Your task to perform on an android device: Show me productivity apps on the Play Store Image 0: 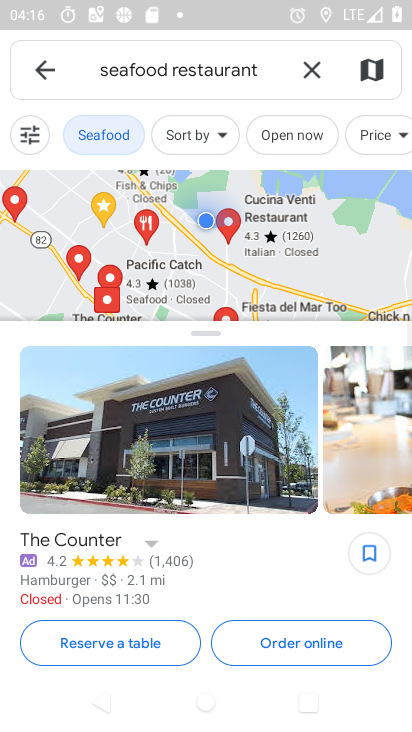
Step 0: press back button
Your task to perform on an android device: Show me productivity apps on the Play Store Image 1: 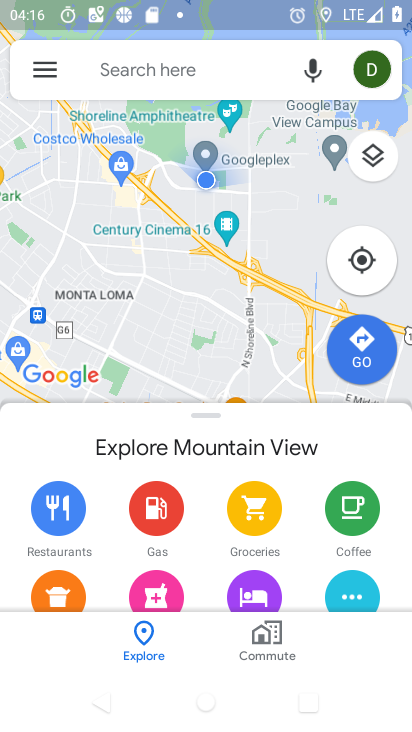
Step 1: press home button
Your task to perform on an android device: Show me productivity apps on the Play Store Image 2: 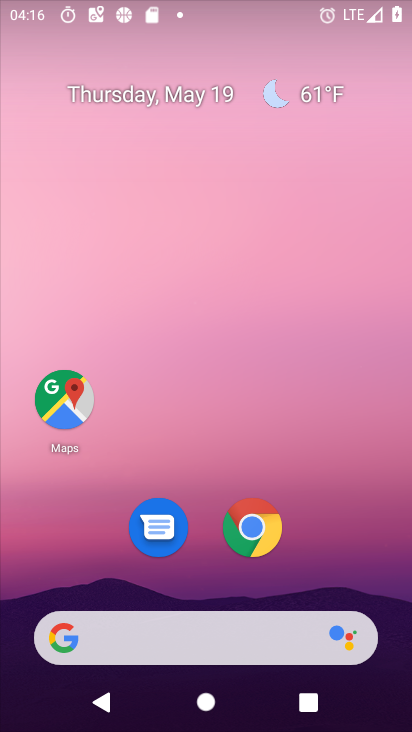
Step 2: drag from (139, 596) to (268, 68)
Your task to perform on an android device: Show me productivity apps on the Play Store Image 3: 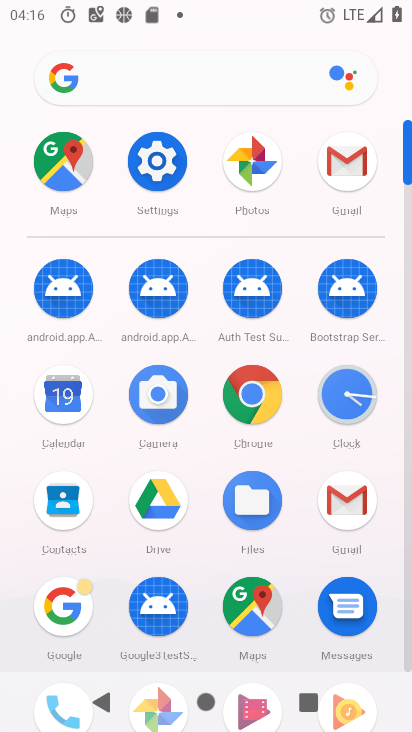
Step 3: drag from (206, 516) to (323, 48)
Your task to perform on an android device: Show me productivity apps on the Play Store Image 4: 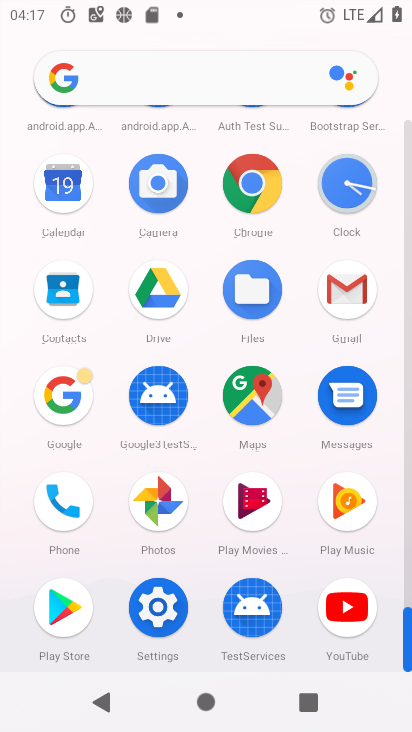
Step 4: click (59, 618)
Your task to perform on an android device: Show me productivity apps on the Play Store Image 5: 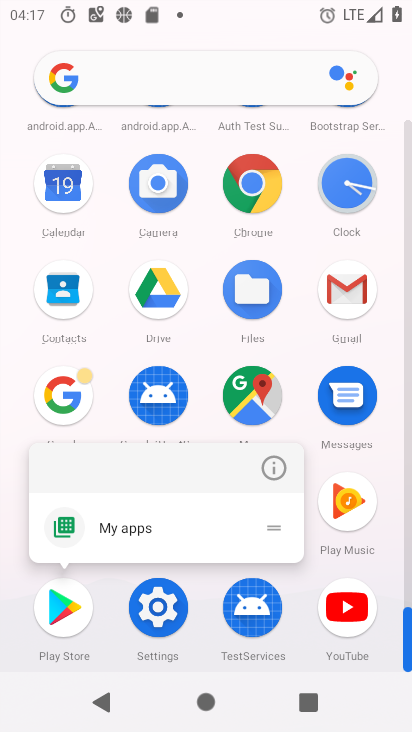
Step 5: click (112, 420)
Your task to perform on an android device: Show me productivity apps on the Play Store Image 6: 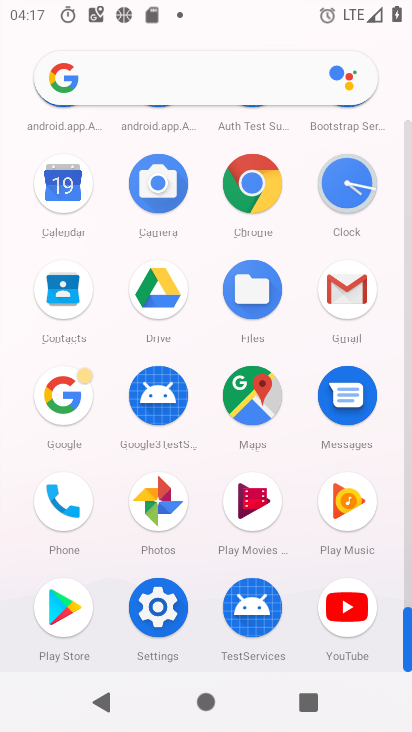
Step 6: click (63, 612)
Your task to perform on an android device: Show me productivity apps on the Play Store Image 7: 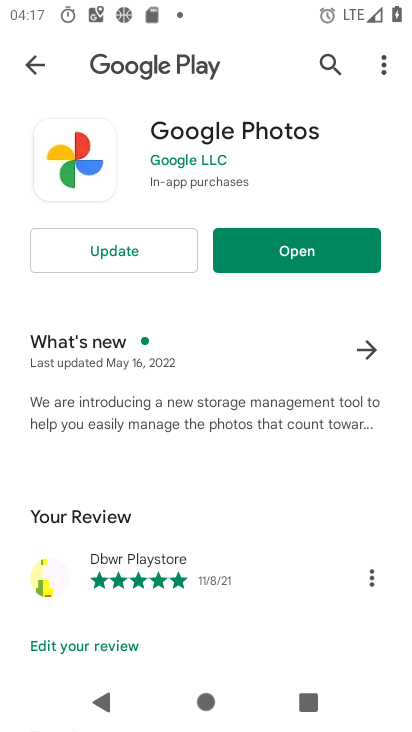
Step 7: click (31, 54)
Your task to perform on an android device: Show me productivity apps on the Play Store Image 8: 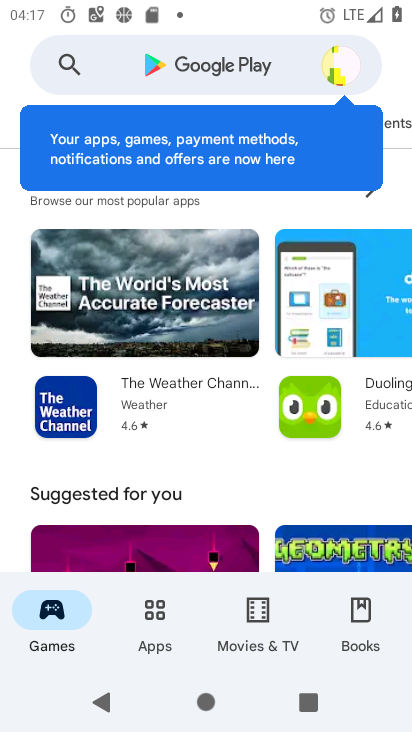
Step 8: click (146, 637)
Your task to perform on an android device: Show me productivity apps on the Play Store Image 9: 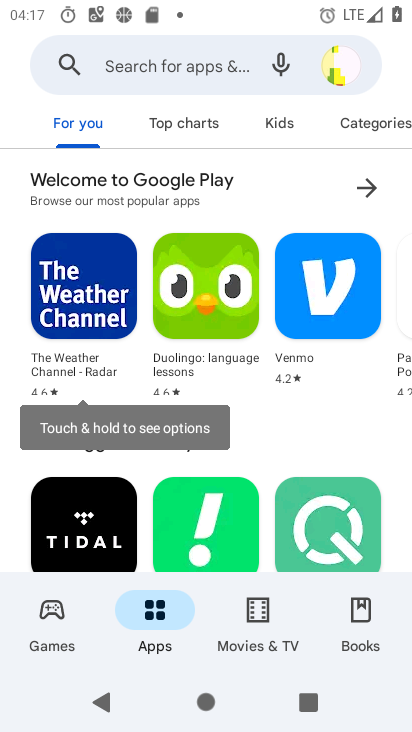
Step 9: drag from (254, 537) to (309, 84)
Your task to perform on an android device: Show me productivity apps on the Play Store Image 10: 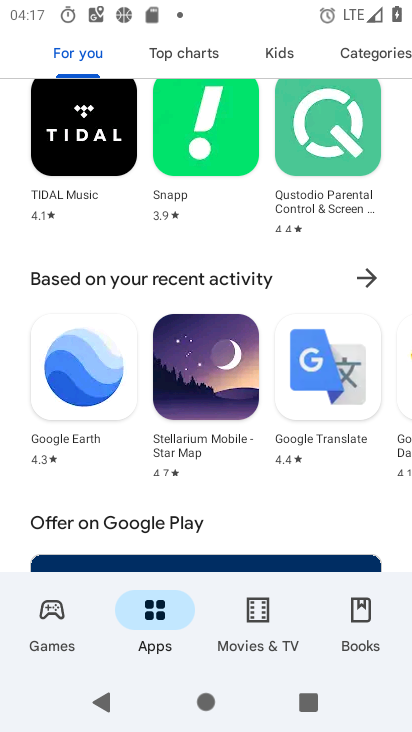
Step 10: drag from (198, 508) to (318, 33)
Your task to perform on an android device: Show me productivity apps on the Play Store Image 11: 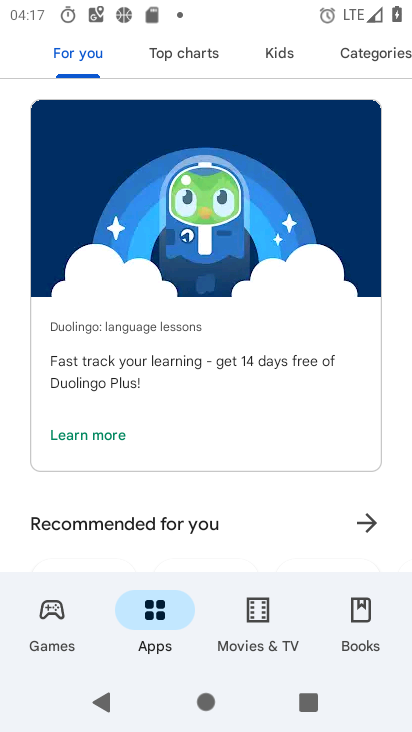
Step 11: drag from (210, 525) to (345, 54)
Your task to perform on an android device: Show me productivity apps on the Play Store Image 12: 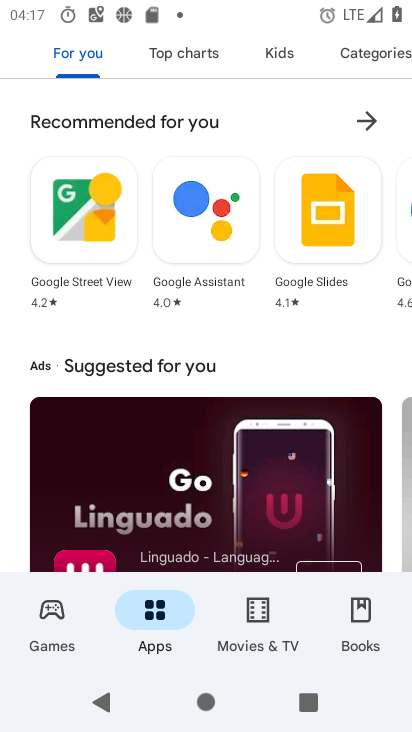
Step 12: drag from (194, 474) to (319, 52)
Your task to perform on an android device: Show me productivity apps on the Play Store Image 13: 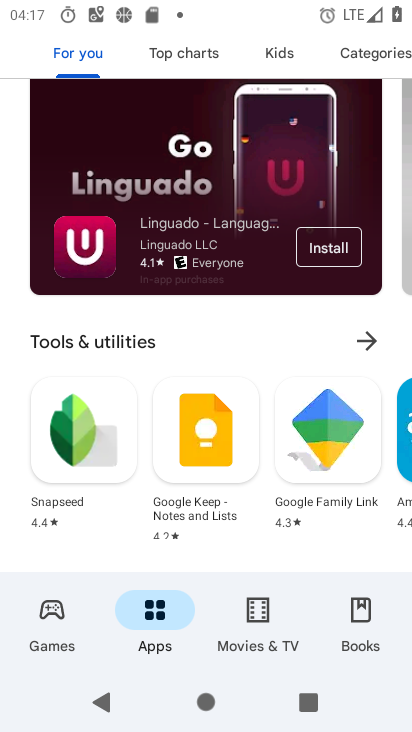
Step 13: drag from (217, 520) to (298, 154)
Your task to perform on an android device: Show me productivity apps on the Play Store Image 14: 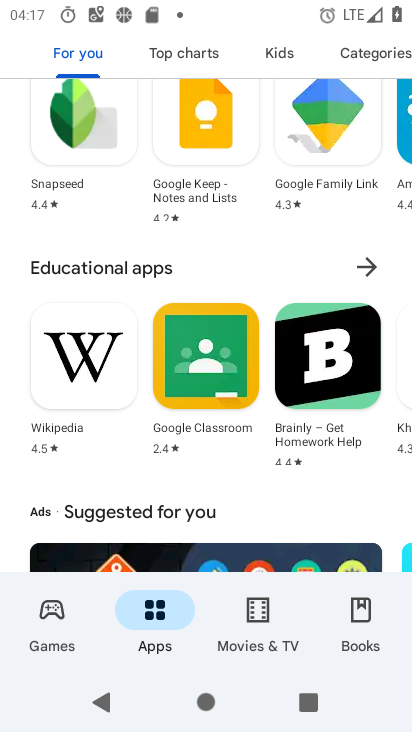
Step 14: drag from (234, 499) to (333, 94)
Your task to perform on an android device: Show me productivity apps on the Play Store Image 15: 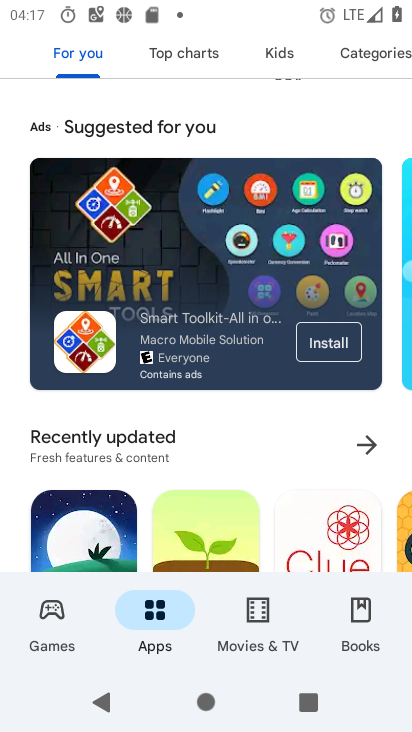
Step 15: drag from (230, 412) to (339, 75)
Your task to perform on an android device: Show me productivity apps on the Play Store Image 16: 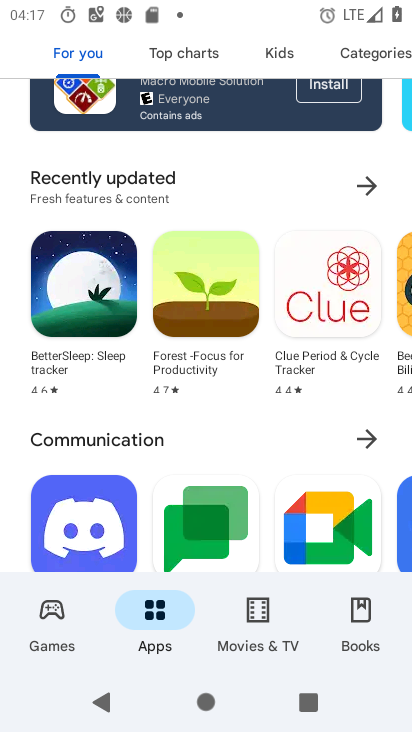
Step 16: drag from (257, 466) to (376, 19)
Your task to perform on an android device: Show me productivity apps on the Play Store Image 17: 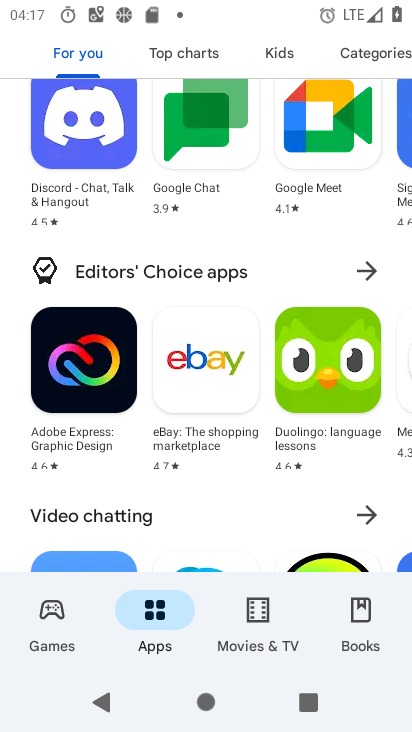
Step 17: drag from (211, 488) to (304, 175)
Your task to perform on an android device: Show me productivity apps on the Play Store Image 18: 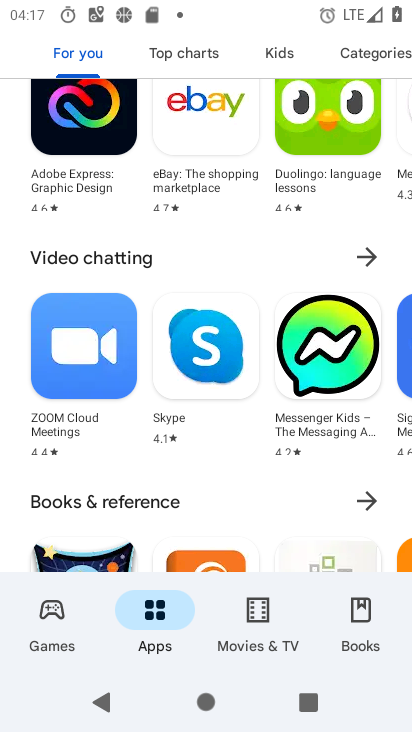
Step 18: drag from (198, 521) to (299, 142)
Your task to perform on an android device: Show me productivity apps on the Play Store Image 19: 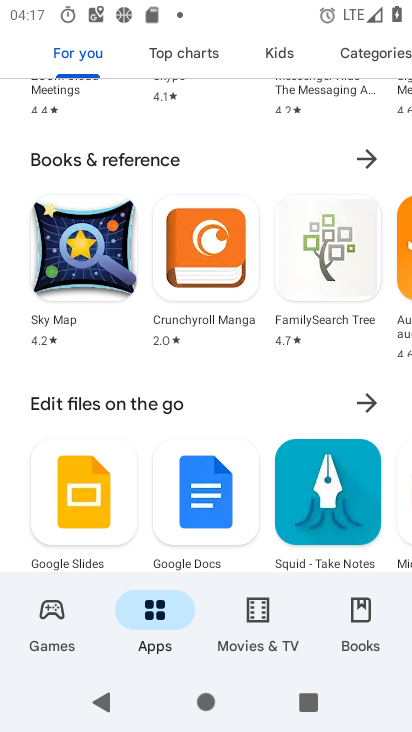
Step 19: drag from (198, 545) to (324, 103)
Your task to perform on an android device: Show me productivity apps on the Play Store Image 20: 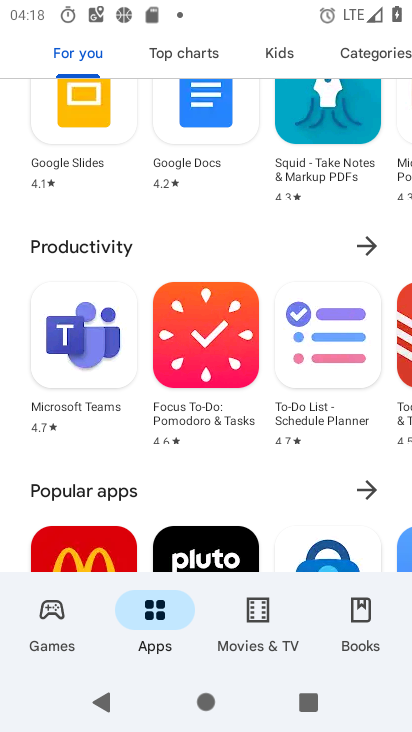
Step 20: click (366, 239)
Your task to perform on an android device: Show me productivity apps on the Play Store Image 21: 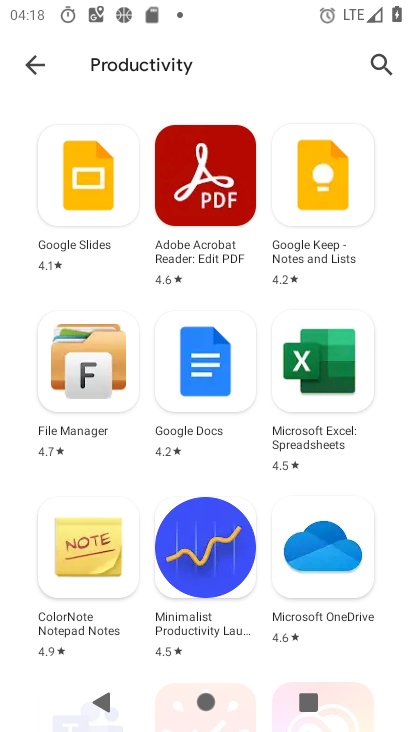
Step 21: task complete